Your task to perform on an android device: see tabs open on other devices in the chrome app Image 0: 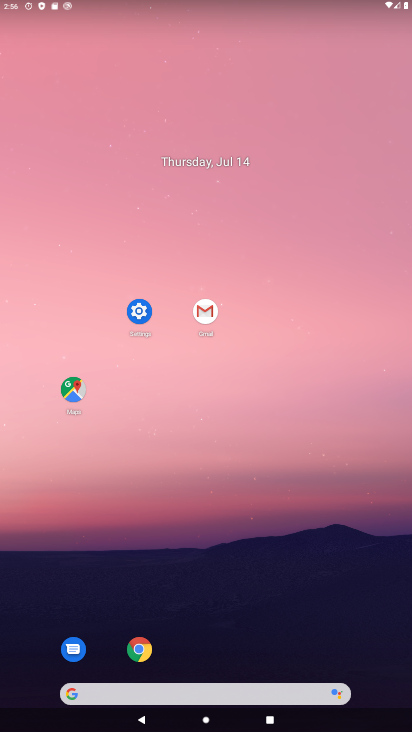
Step 0: click (135, 656)
Your task to perform on an android device: see tabs open on other devices in the chrome app Image 1: 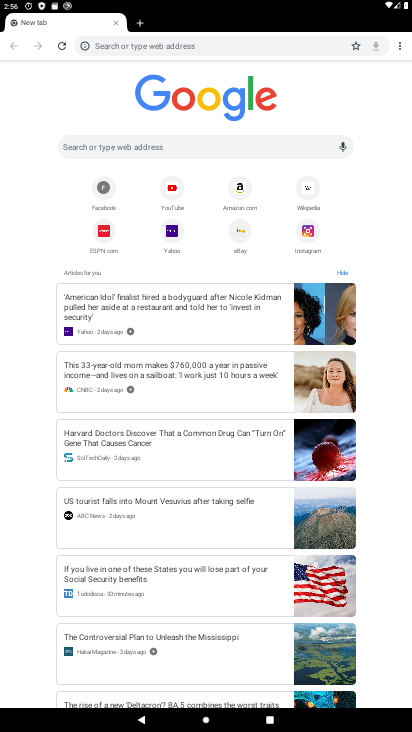
Step 1: click (406, 47)
Your task to perform on an android device: see tabs open on other devices in the chrome app Image 2: 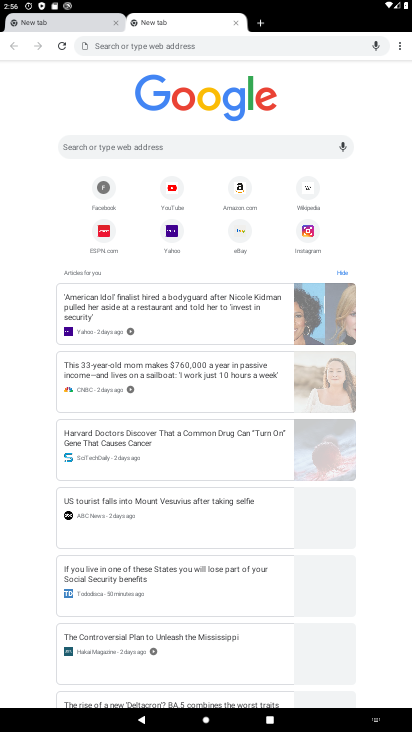
Step 2: click (405, 40)
Your task to perform on an android device: see tabs open on other devices in the chrome app Image 3: 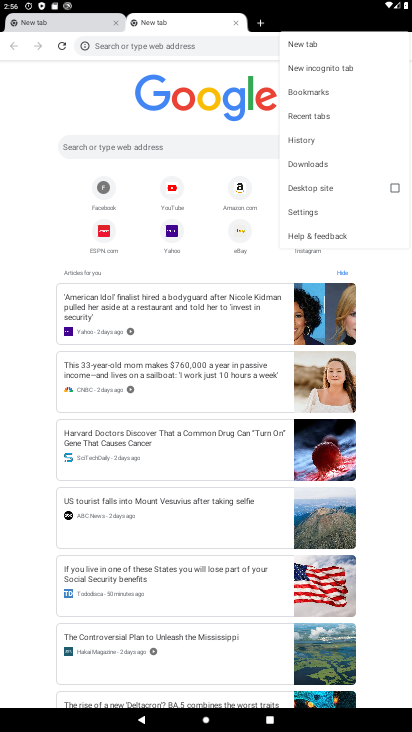
Step 3: click (362, 119)
Your task to perform on an android device: see tabs open on other devices in the chrome app Image 4: 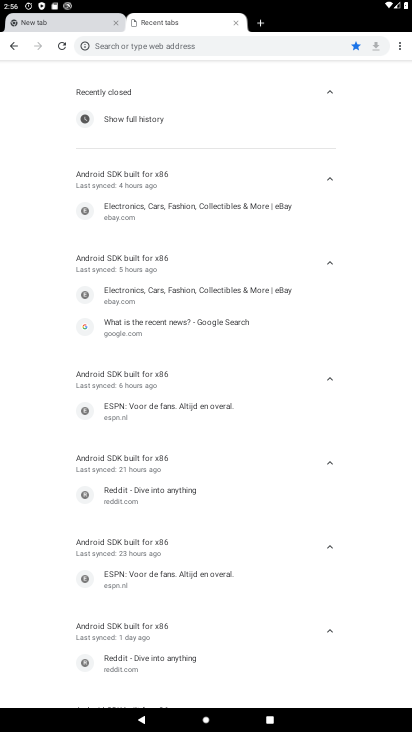
Step 4: task complete